Your task to perform on an android device: Go to eBay Image 0: 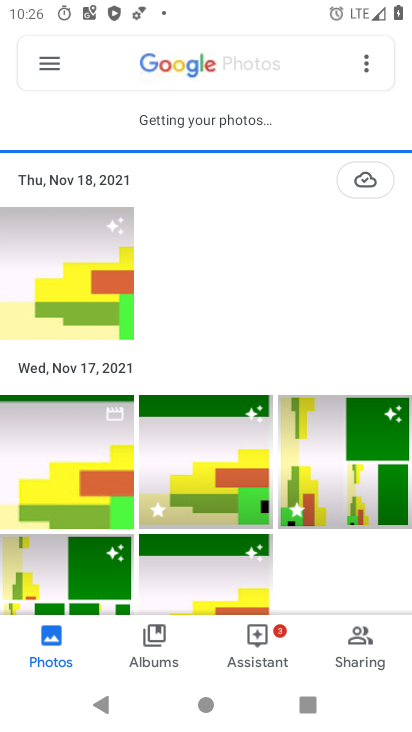
Step 0: press back button
Your task to perform on an android device: Go to eBay Image 1: 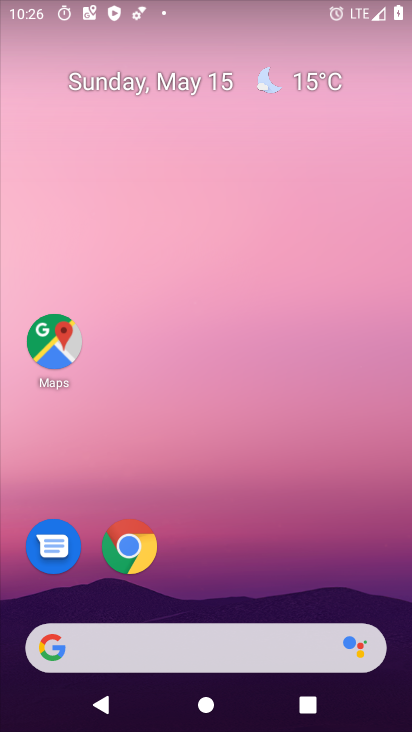
Step 1: drag from (323, 642) to (92, 52)
Your task to perform on an android device: Go to eBay Image 2: 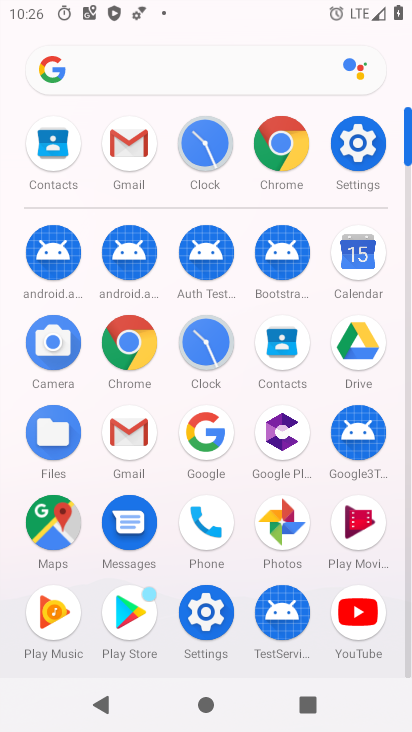
Step 2: click (286, 143)
Your task to perform on an android device: Go to eBay Image 3: 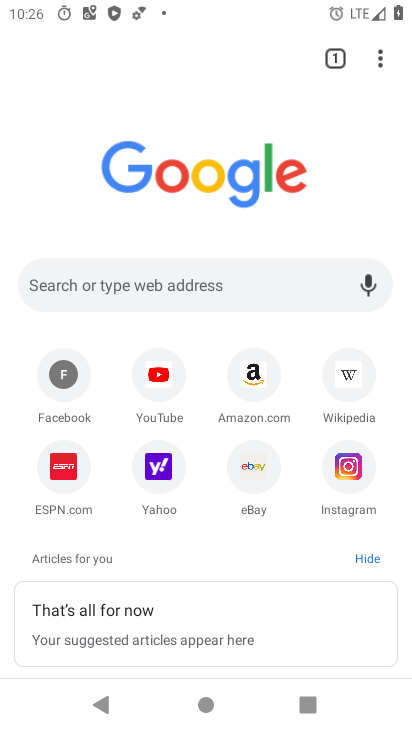
Step 3: click (242, 474)
Your task to perform on an android device: Go to eBay Image 4: 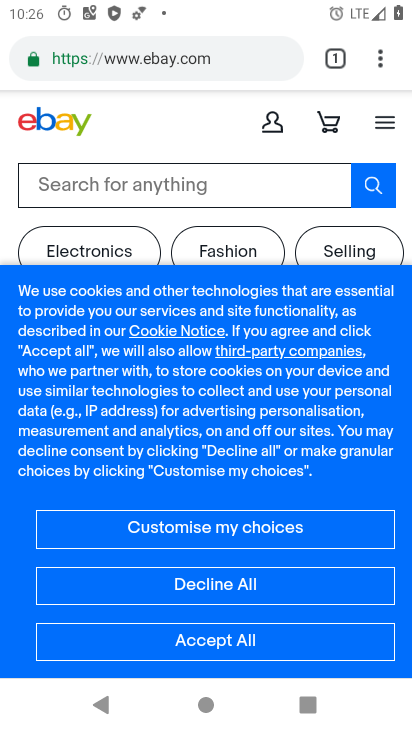
Step 4: task complete